Your task to perform on an android device: check google app version Image 0: 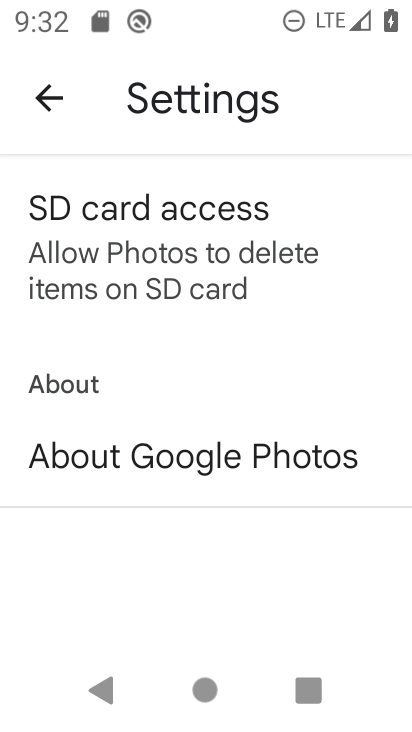
Step 0: press home button
Your task to perform on an android device: check google app version Image 1: 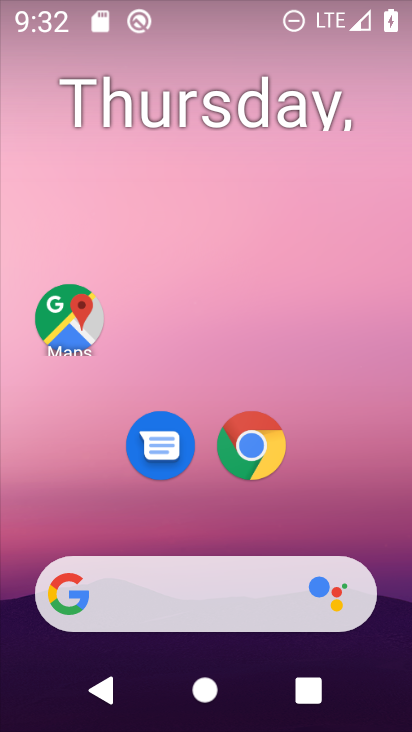
Step 1: drag from (384, 619) to (317, 23)
Your task to perform on an android device: check google app version Image 2: 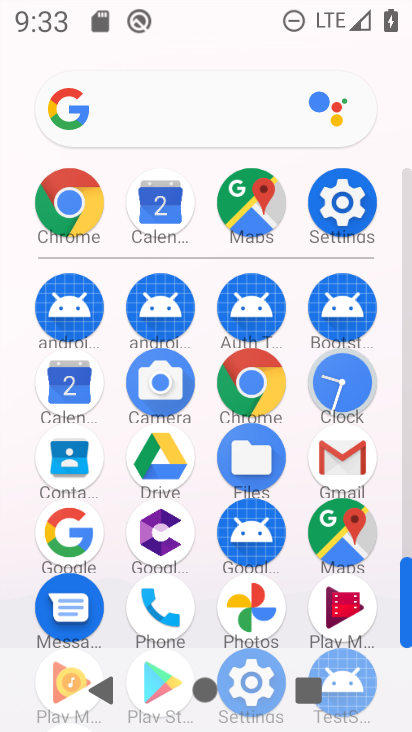
Step 2: click (42, 528)
Your task to perform on an android device: check google app version Image 3: 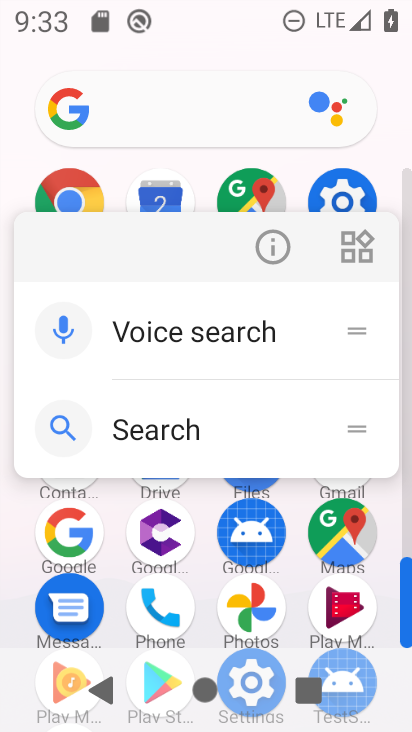
Step 3: click (281, 240)
Your task to perform on an android device: check google app version Image 4: 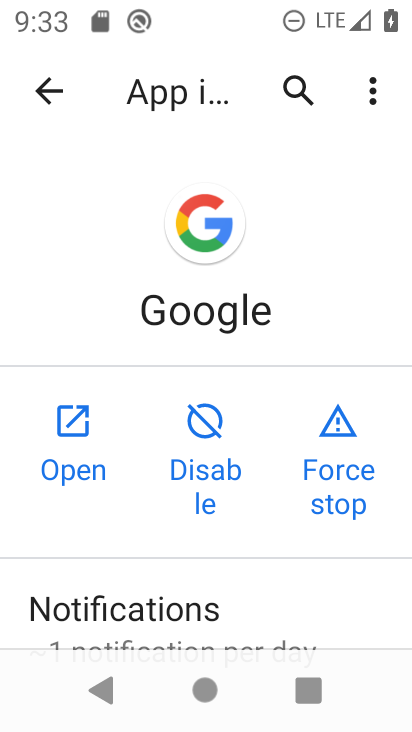
Step 4: drag from (256, 480) to (231, 7)
Your task to perform on an android device: check google app version Image 5: 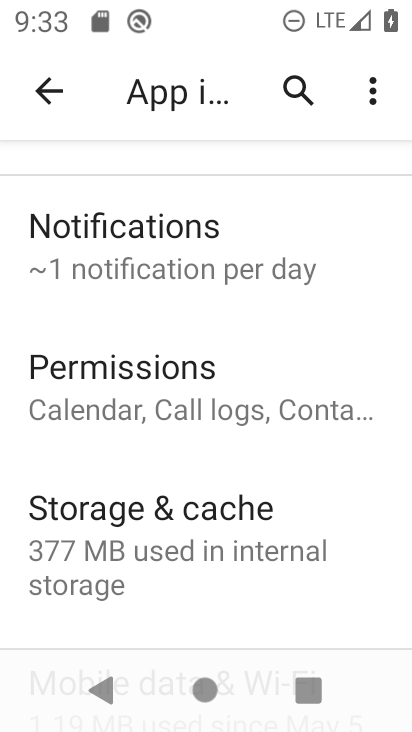
Step 5: drag from (145, 544) to (211, 300)
Your task to perform on an android device: check google app version Image 6: 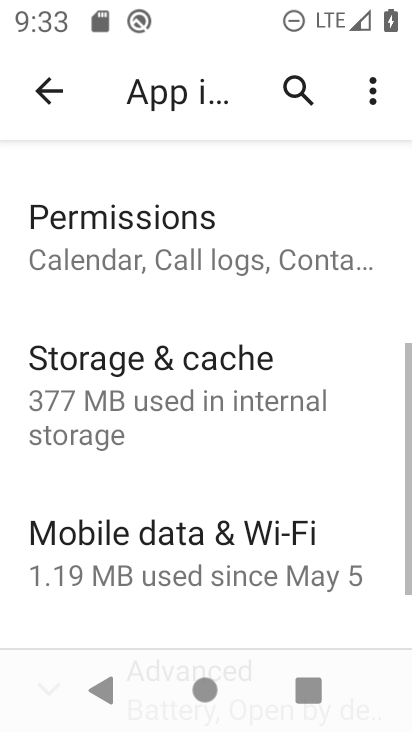
Step 6: click (202, 114)
Your task to perform on an android device: check google app version Image 7: 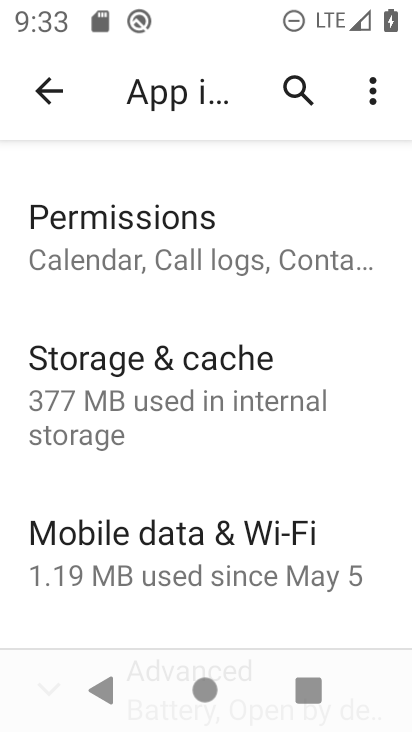
Step 7: drag from (160, 569) to (188, 94)
Your task to perform on an android device: check google app version Image 8: 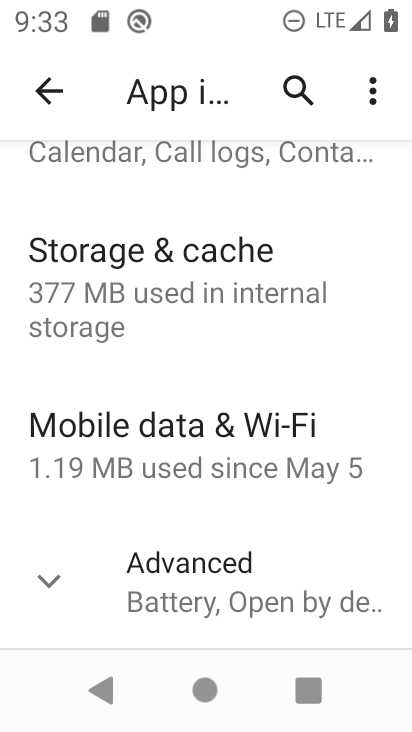
Step 8: click (51, 596)
Your task to perform on an android device: check google app version Image 9: 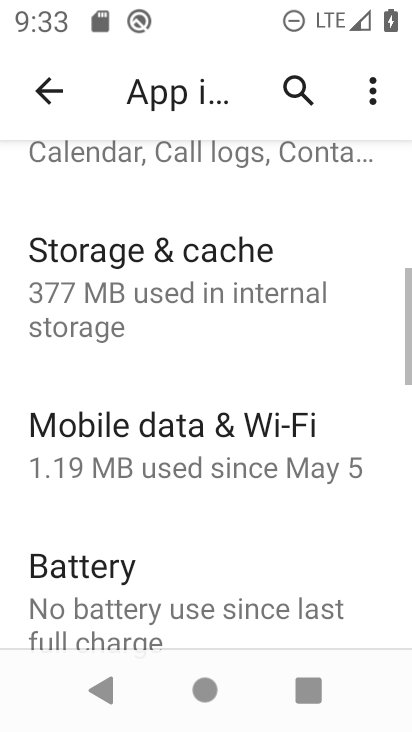
Step 9: task complete